Your task to perform on an android device: change the upload size in google photos Image 0: 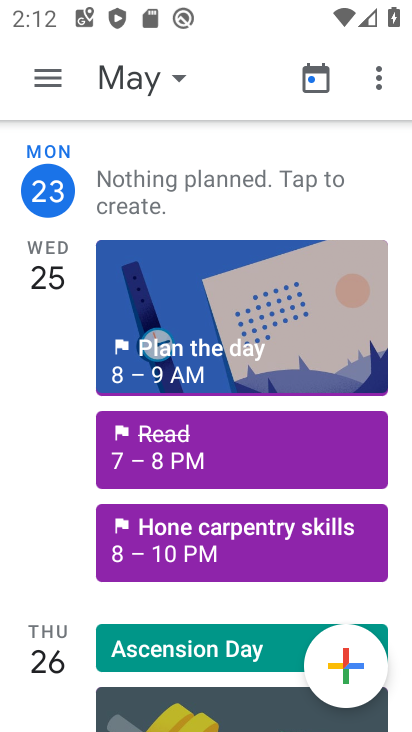
Step 0: press home button
Your task to perform on an android device: change the upload size in google photos Image 1: 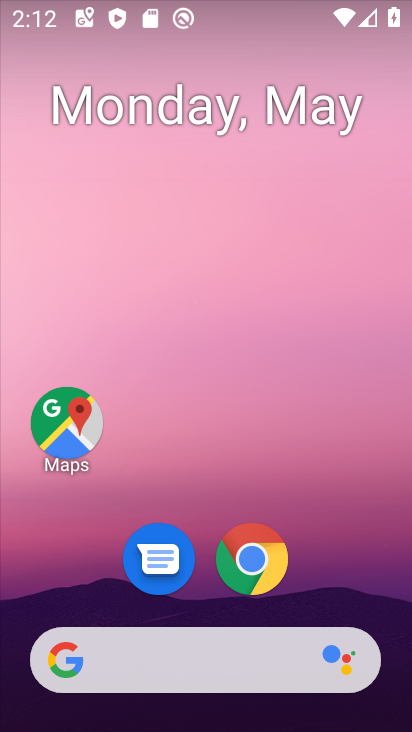
Step 1: drag from (283, 701) to (310, 105)
Your task to perform on an android device: change the upload size in google photos Image 2: 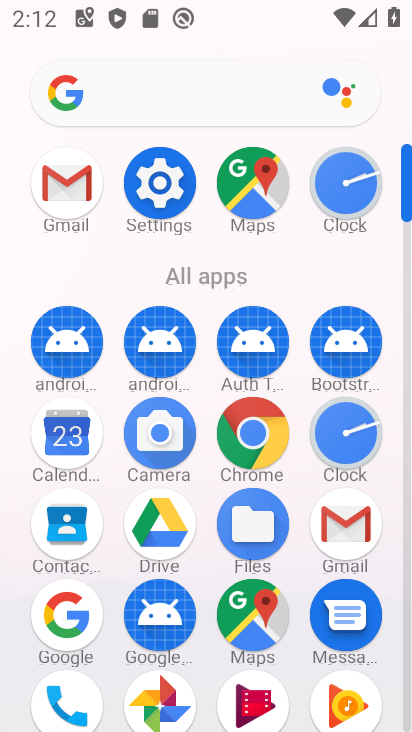
Step 2: click (172, 683)
Your task to perform on an android device: change the upload size in google photos Image 3: 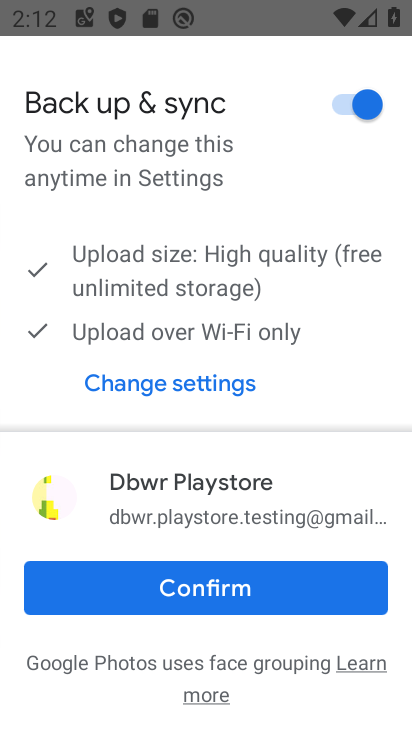
Step 3: click (216, 589)
Your task to perform on an android device: change the upload size in google photos Image 4: 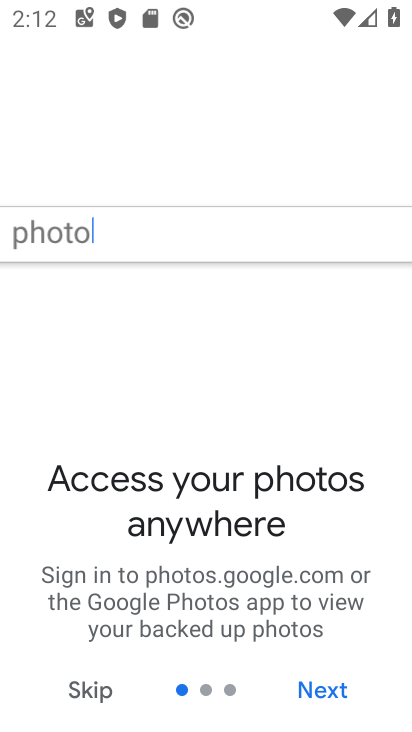
Step 4: click (55, 71)
Your task to perform on an android device: change the upload size in google photos Image 5: 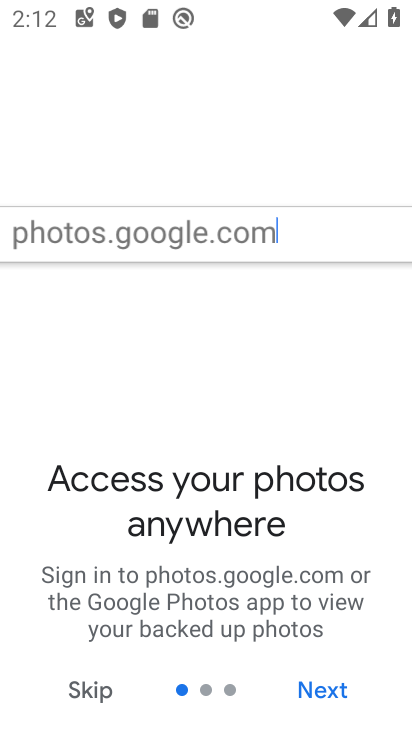
Step 5: click (330, 683)
Your task to perform on an android device: change the upload size in google photos Image 6: 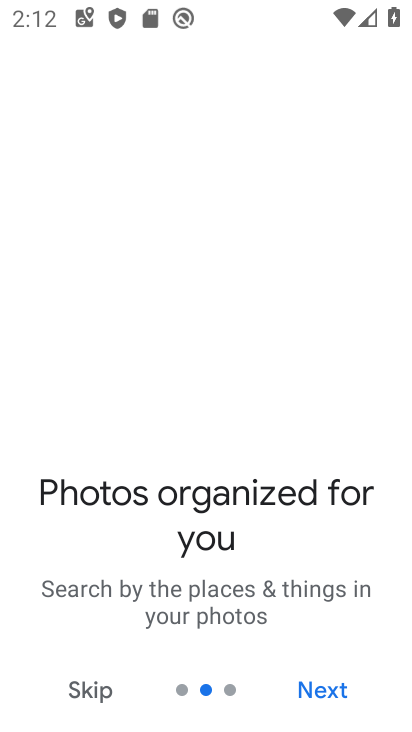
Step 6: click (314, 690)
Your task to perform on an android device: change the upload size in google photos Image 7: 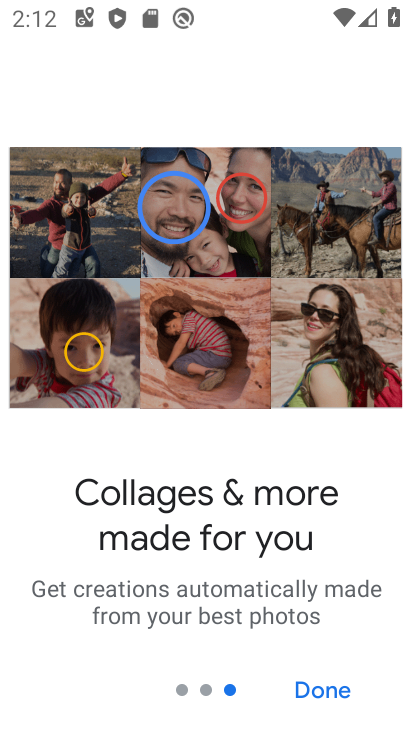
Step 7: click (314, 684)
Your task to perform on an android device: change the upload size in google photos Image 8: 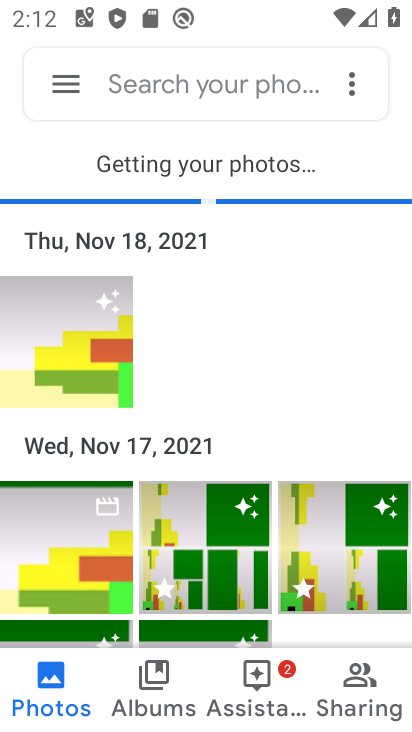
Step 8: click (62, 75)
Your task to perform on an android device: change the upload size in google photos Image 9: 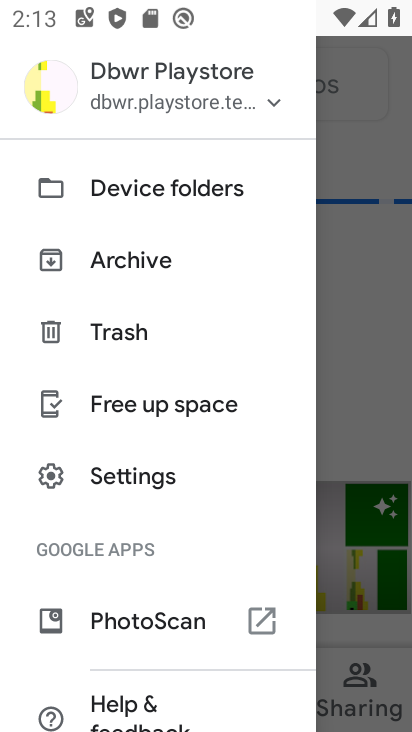
Step 9: click (163, 482)
Your task to perform on an android device: change the upload size in google photos Image 10: 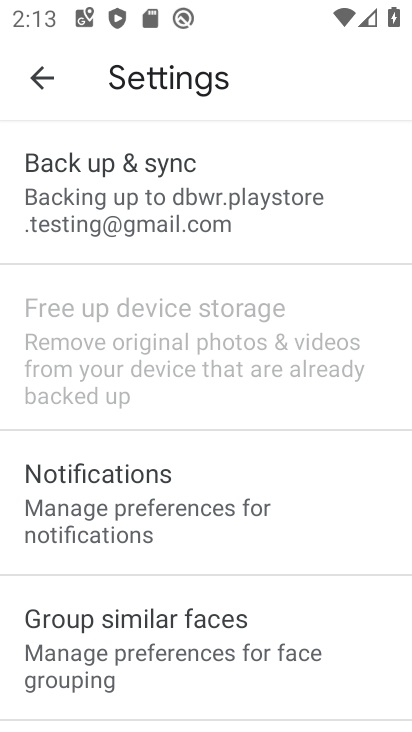
Step 10: click (95, 220)
Your task to perform on an android device: change the upload size in google photos Image 11: 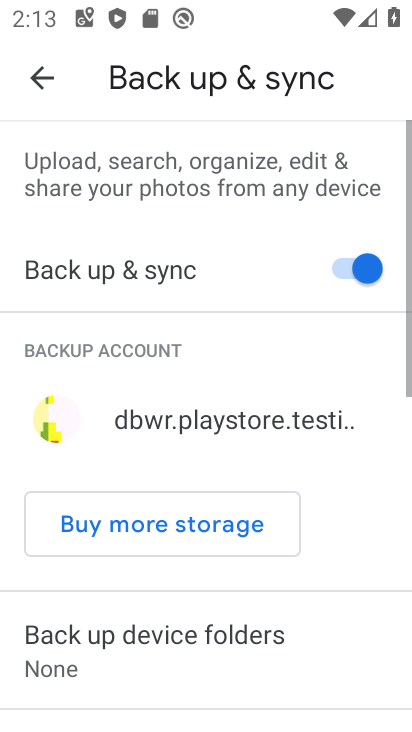
Step 11: drag from (135, 623) to (148, 307)
Your task to perform on an android device: change the upload size in google photos Image 12: 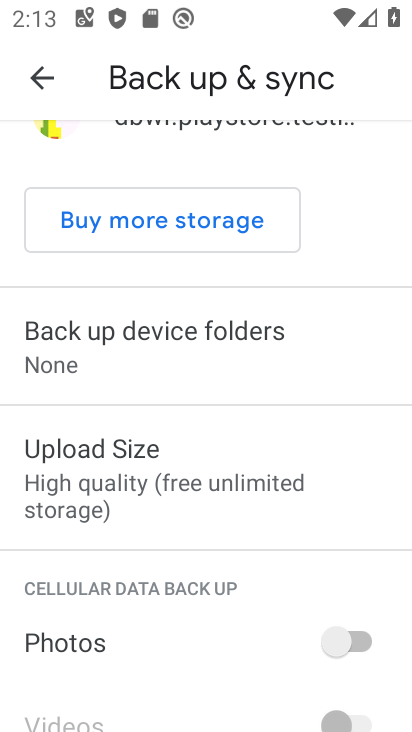
Step 12: click (135, 454)
Your task to perform on an android device: change the upload size in google photos Image 13: 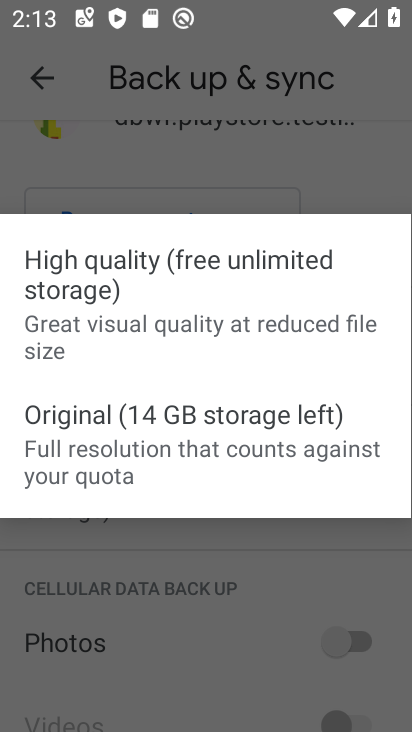
Step 13: task complete